Your task to perform on an android device: set an alarm Image 0: 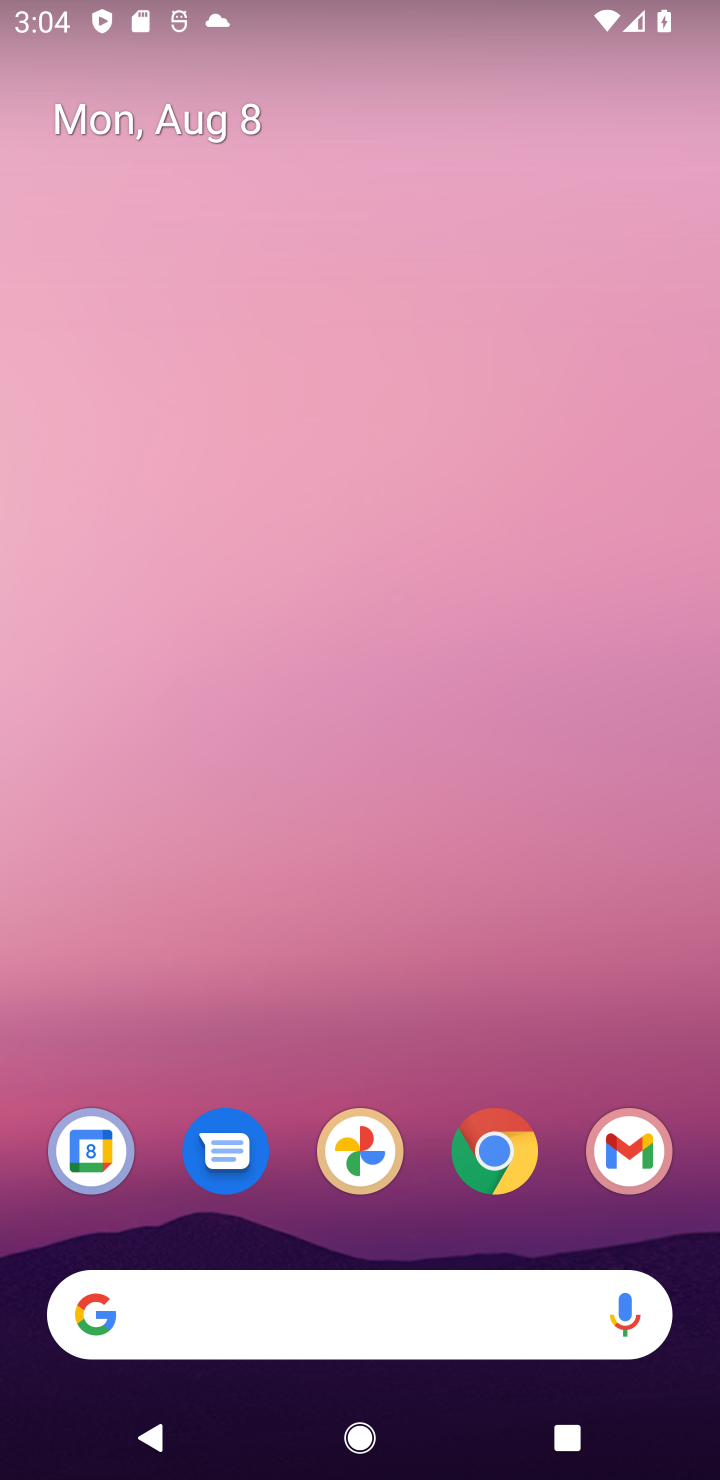
Step 0: drag from (378, 953) to (474, 7)
Your task to perform on an android device: set an alarm Image 1: 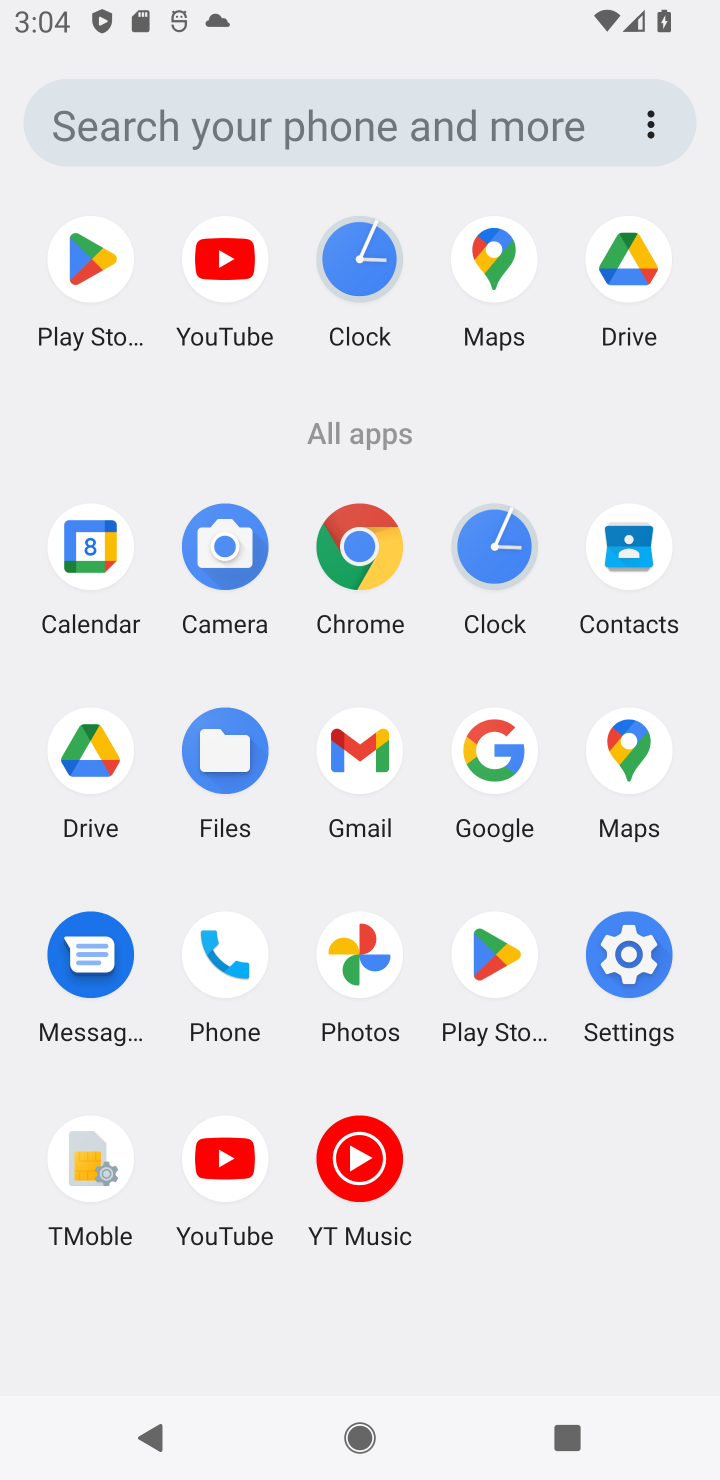
Step 1: click (358, 281)
Your task to perform on an android device: set an alarm Image 2: 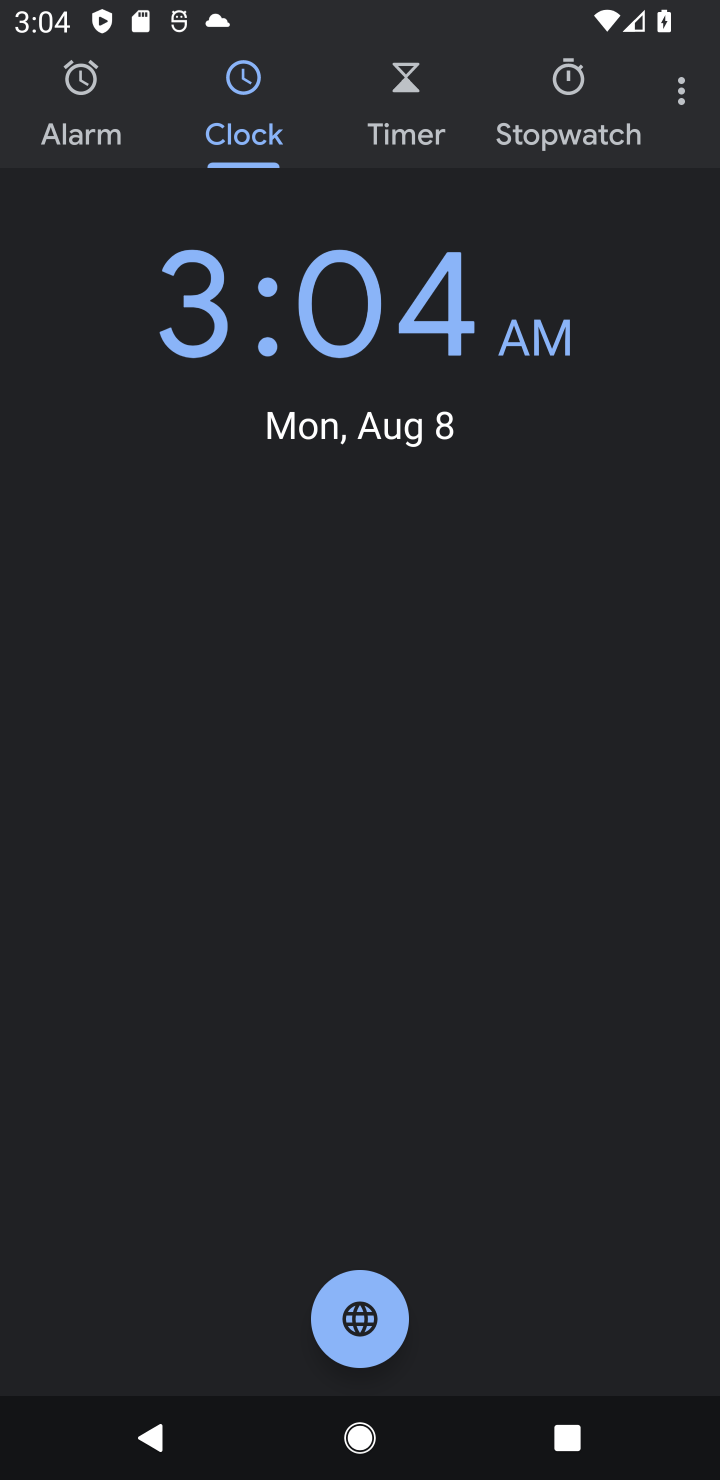
Step 2: click (92, 98)
Your task to perform on an android device: set an alarm Image 3: 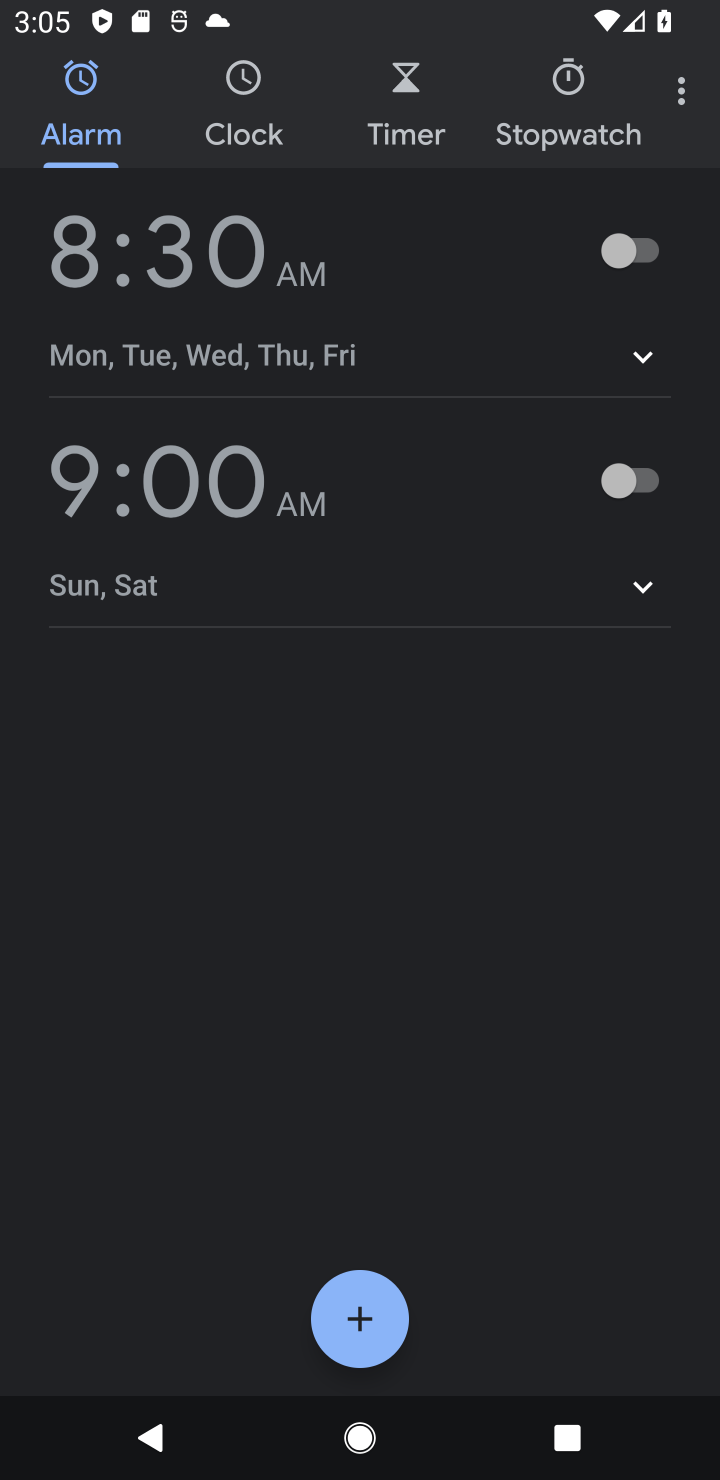
Step 3: click (652, 231)
Your task to perform on an android device: set an alarm Image 4: 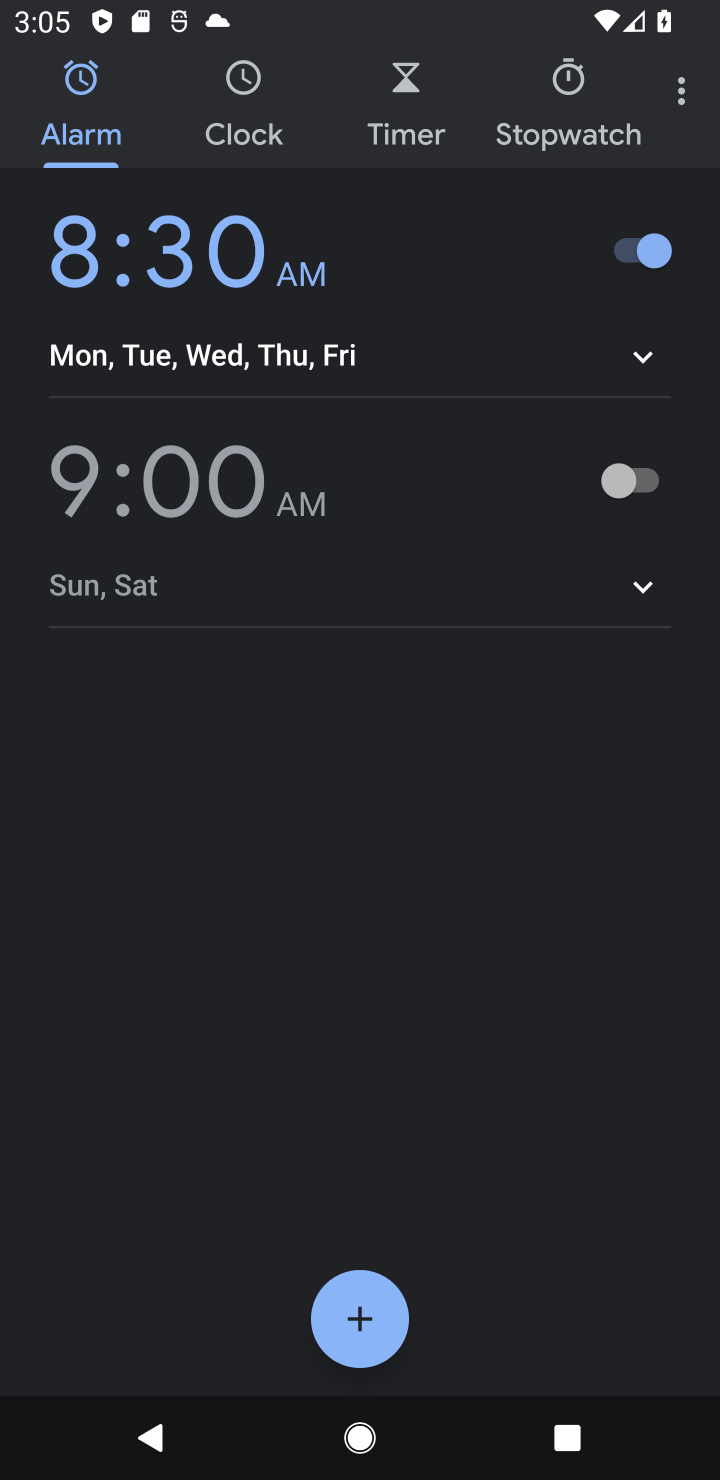
Step 4: task complete